Your task to perform on an android device: turn on airplane mode Image 0: 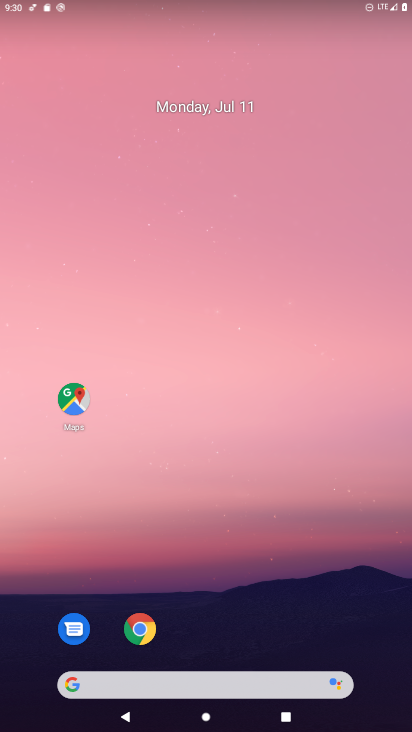
Step 0: drag from (281, 6) to (265, 629)
Your task to perform on an android device: turn on airplane mode Image 1: 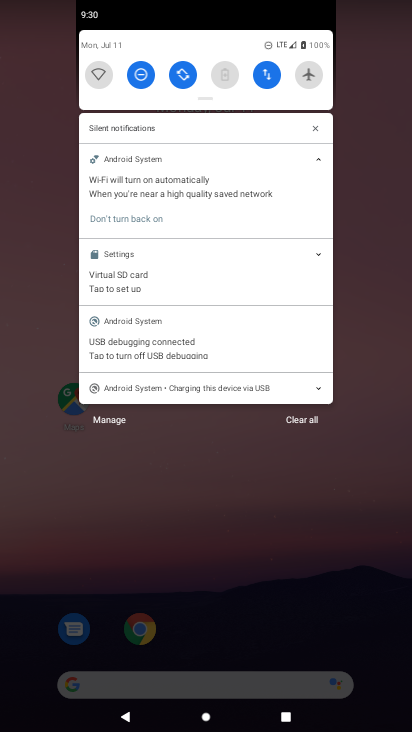
Step 1: click (302, 63)
Your task to perform on an android device: turn on airplane mode Image 2: 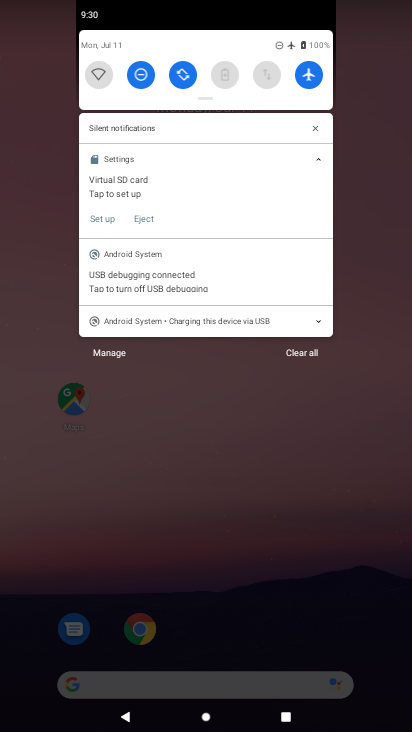
Step 2: task complete